Your task to perform on an android device: turn on bluetooth scan Image 0: 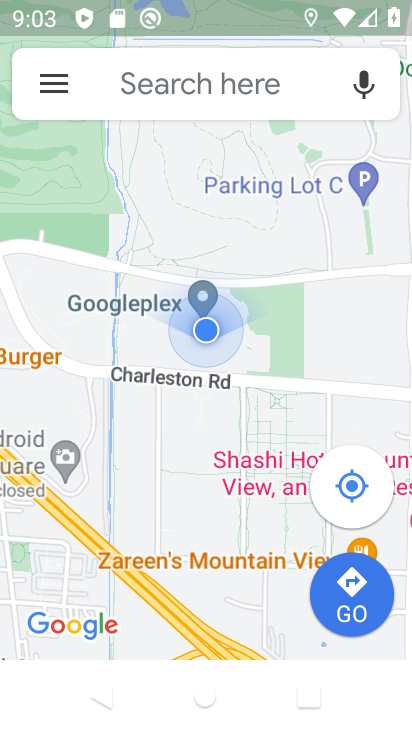
Step 0: press home button
Your task to perform on an android device: turn on bluetooth scan Image 1: 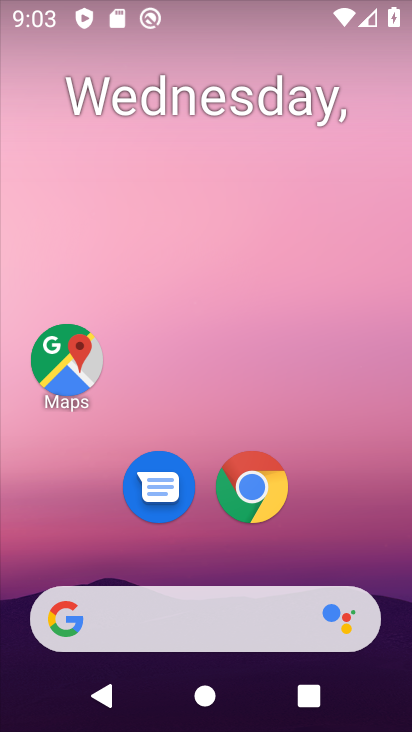
Step 1: drag from (246, 506) to (255, 135)
Your task to perform on an android device: turn on bluetooth scan Image 2: 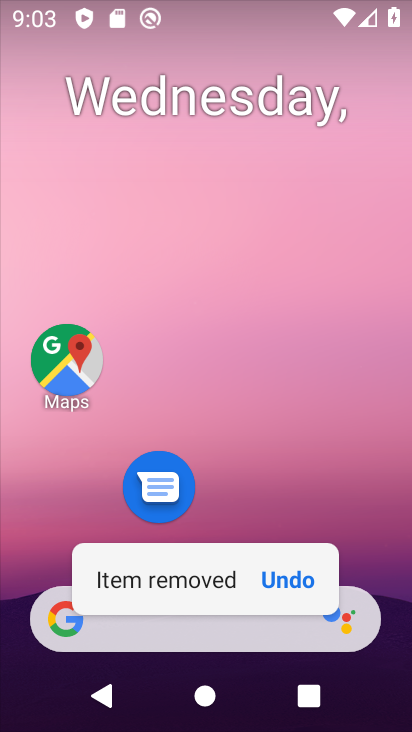
Step 2: drag from (298, 359) to (296, 104)
Your task to perform on an android device: turn on bluetooth scan Image 3: 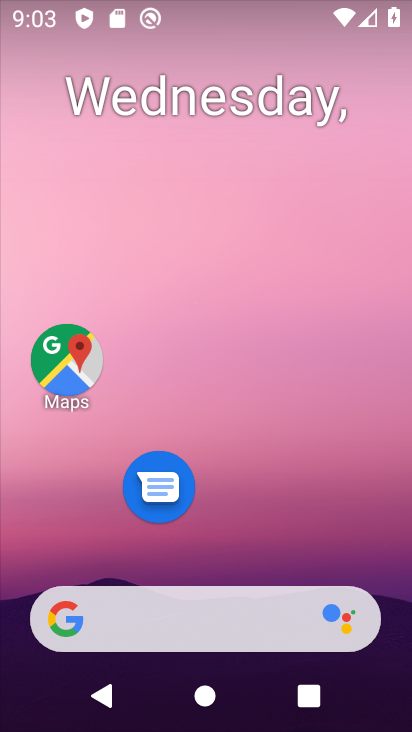
Step 3: drag from (255, 616) to (267, 105)
Your task to perform on an android device: turn on bluetooth scan Image 4: 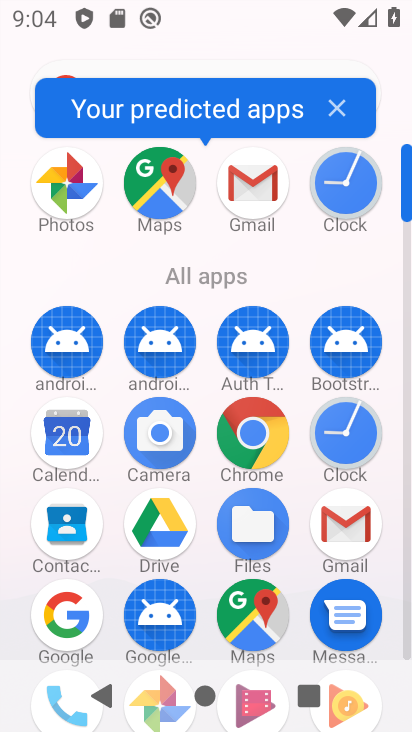
Step 4: click (410, 609)
Your task to perform on an android device: turn on bluetooth scan Image 5: 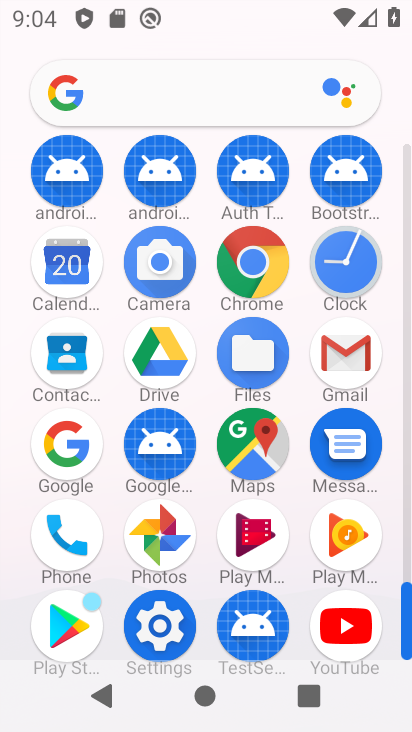
Step 5: click (176, 640)
Your task to perform on an android device: turn on bluetooth scan Image 6: 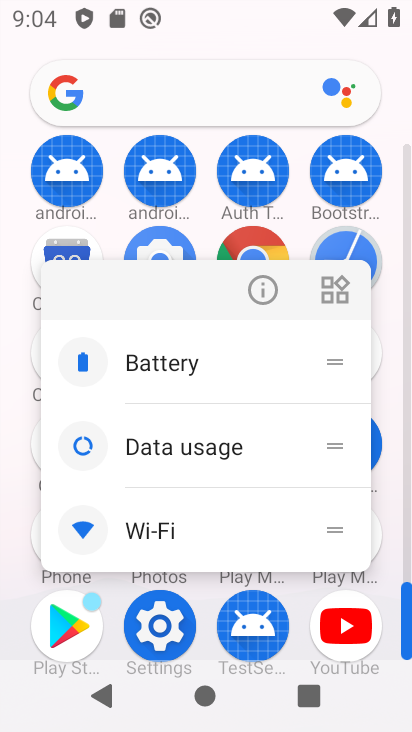
Step 6: click (167, 629)
Your task to perform on an android device: turn on bluetooth scan Image 7: 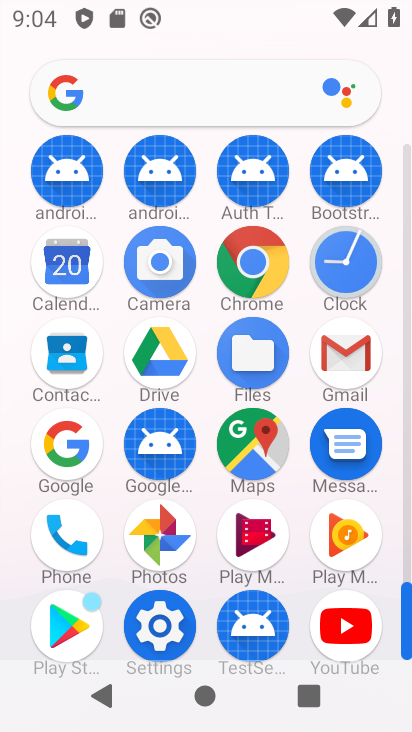
Step 7: click (162, 629)
Your task to perform on an android device: turn on bluetooth scan Image 8: 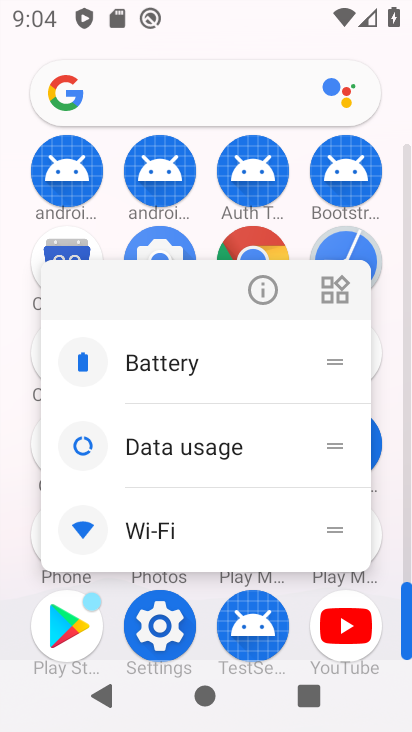
Step 8: click (158, 629)
Your task to perform on an android device: turn on bluetooth scan Image 9: 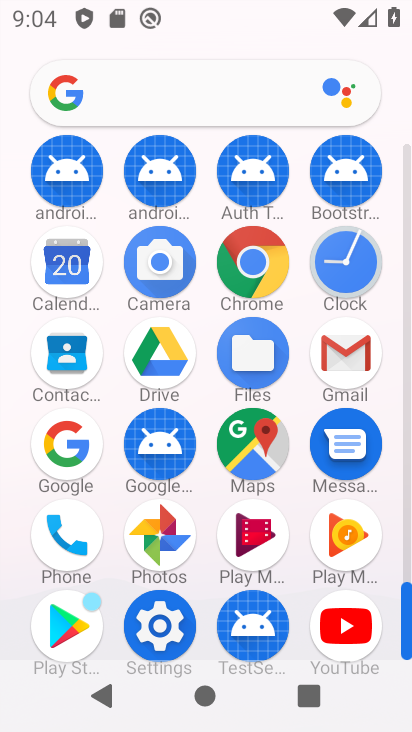
Step 9: click (158, 603)
Your task to perform on an android device: turn on bluetooth scan Image 10: 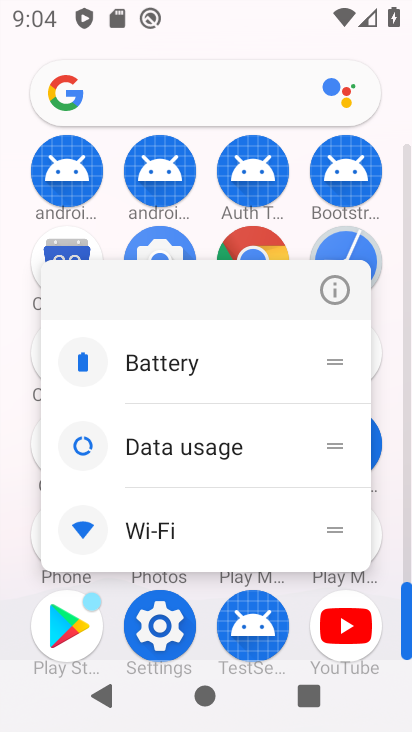
Step 10: click (162, 628)
Your task to perform on an android device: turn on bluetooth scan Image 11: 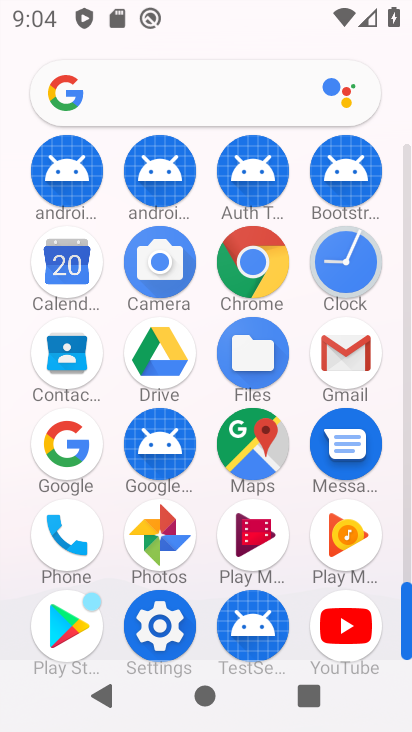
Step 11: click (151, 629)
Your task to perform on an android device: turn on bluetooth scan Image 12: 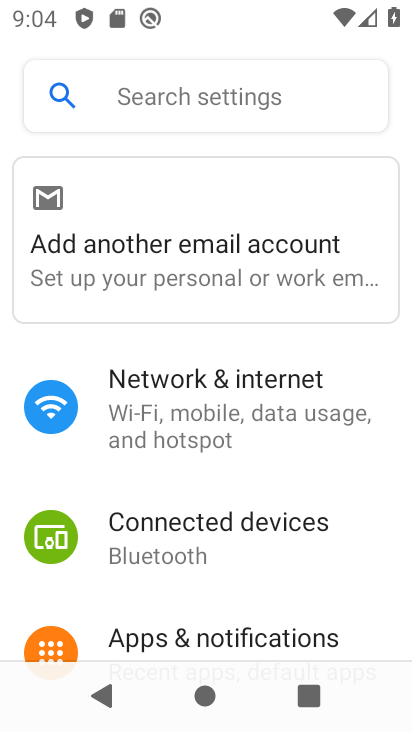
Step 12: click (263, 554)
Your task to perform on an android device: turn on bluetooth scan Image 13: 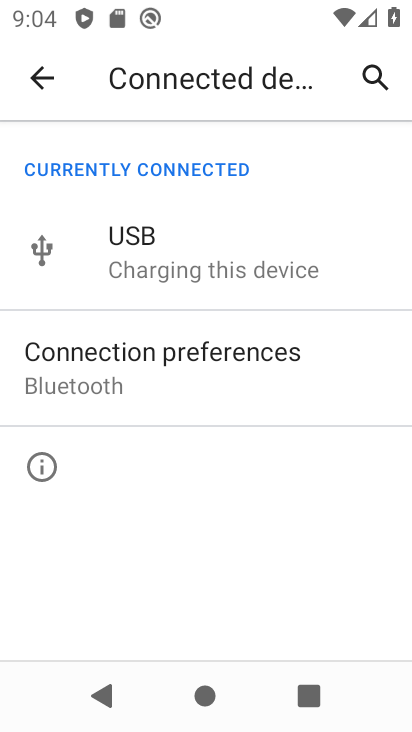
Step 13: click (321, 369)
Your task to perform on an android device: turn on bluetooth scan Image 14: 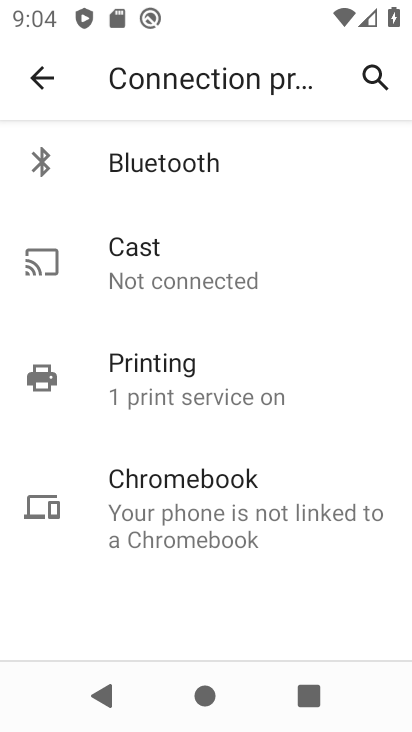
Step 14: click (267, 182)
Your task to perform on an android device: turn on bluetooth scan Image 15: 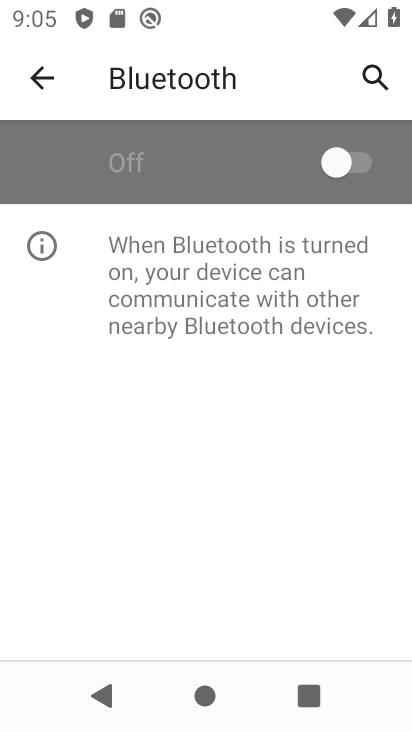
Step 15: click (364, 167)
Your task to perform on an android device: turn on bluetooth scan Image 16: 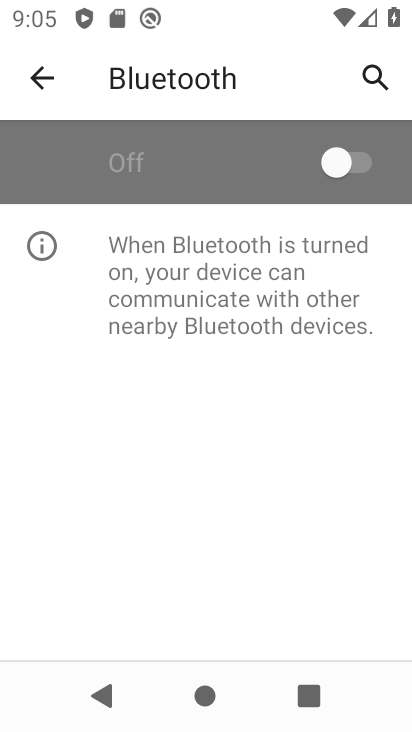
Step 16: task complete